Your task to perform on an android device: Open calendar and show me the first week of next month Image 0: 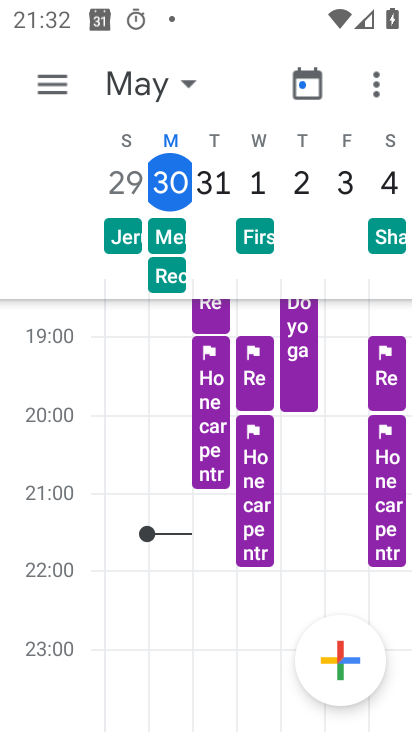
Step 0: click (152, 85)
Your task to perform on an android device: Open calendar and show me the first week of next month Image 1: 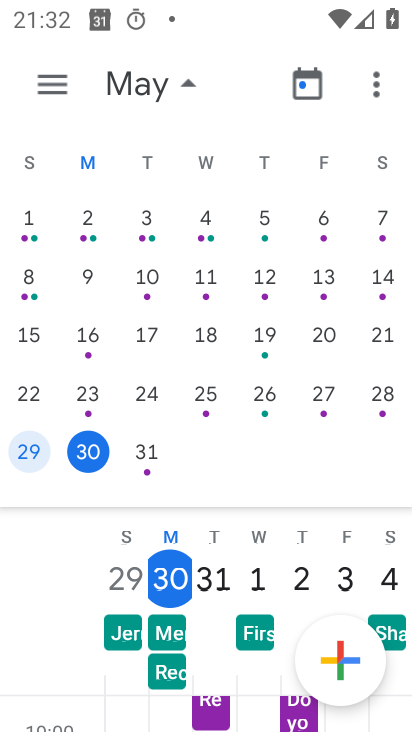
Step 1: drag from (356, 445) to (36, 438)
Your task to perform on an android device: Open calendar and show me the first week of next month Image 2: 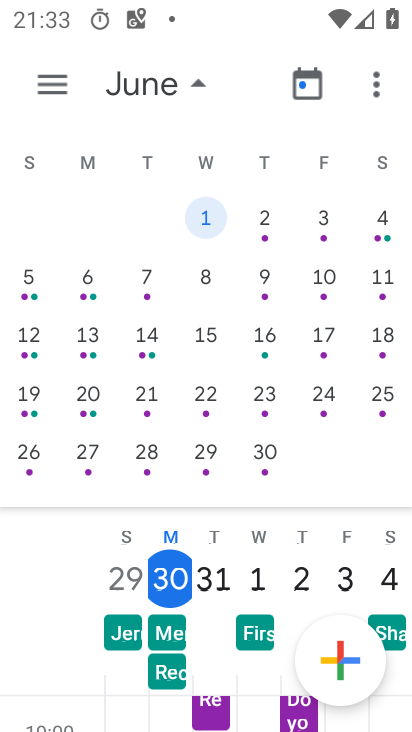
Step 2: drag from (205, 530) to (243, 216)
Your task to perform on an android device: Open calendar and show me the first week of next month Image 3: 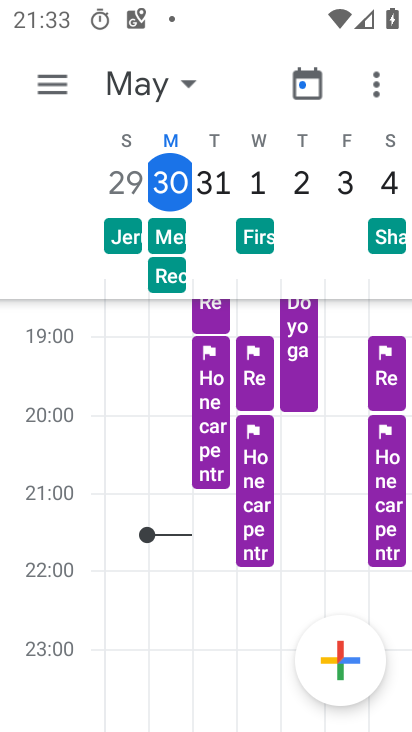
Step 3: click (182, 89)
Your task to perform on an android device: Open calendar and show me the first week of next month Image 4: 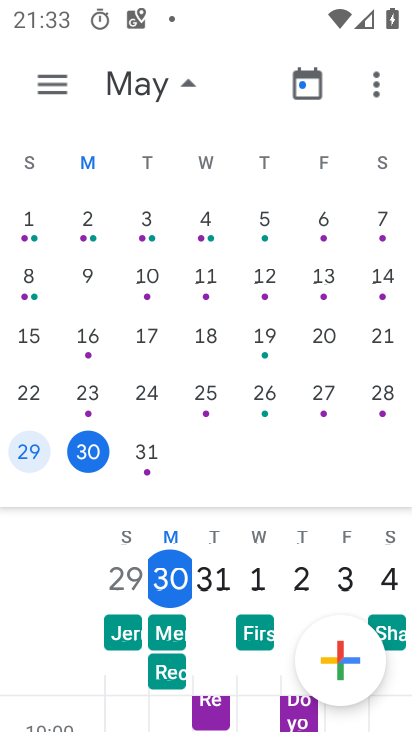
Step 4: drag from (353, 449) to (50, 356)
Your task to perform on an android device: Open calendar and show me the first week of next month Image 5: 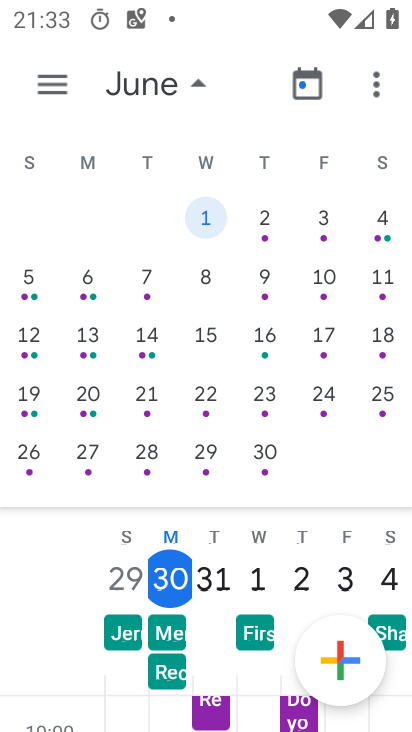
Step 5: click (267, 217)
Your task to perform on an android device: Open calendar and show me the first week of next month Image 6: 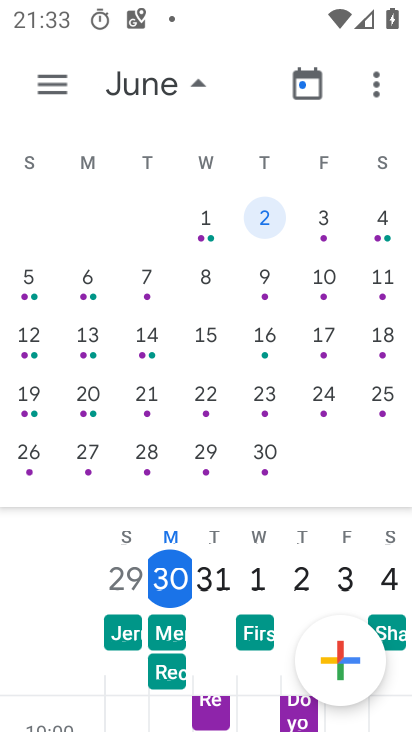
Step 6: task complete